Your task to perform on an android device: Go to battery settings Image 0: 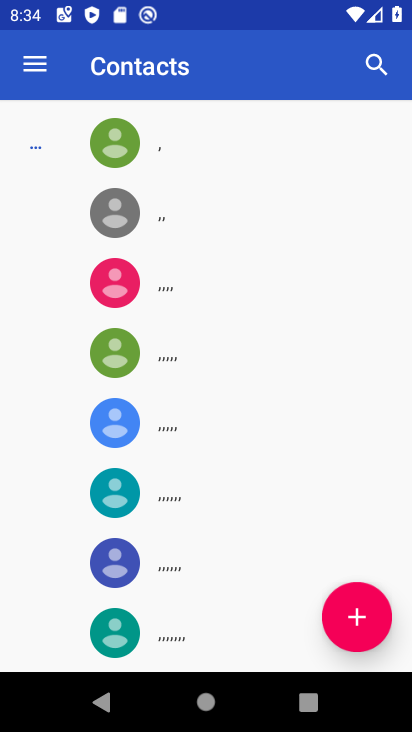
Step 0: press home button
Your task to perform on an android device: Go to battery settings Image 1: 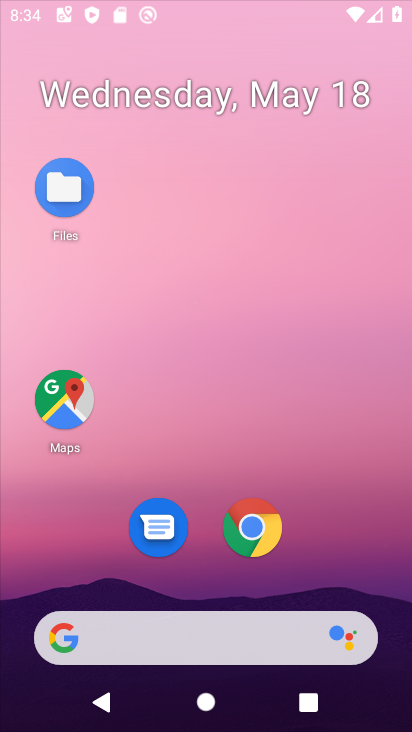
Step 1: press back button
Your task to perform on an android device: Go to battery settings Image 2: 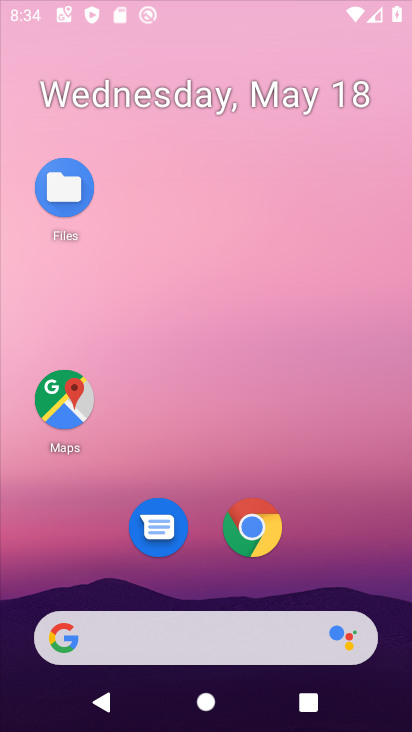
Step 2: drag from (357, 687) to (266, 117)
Your task to perform on an android device: Go to battery settings Image 3: 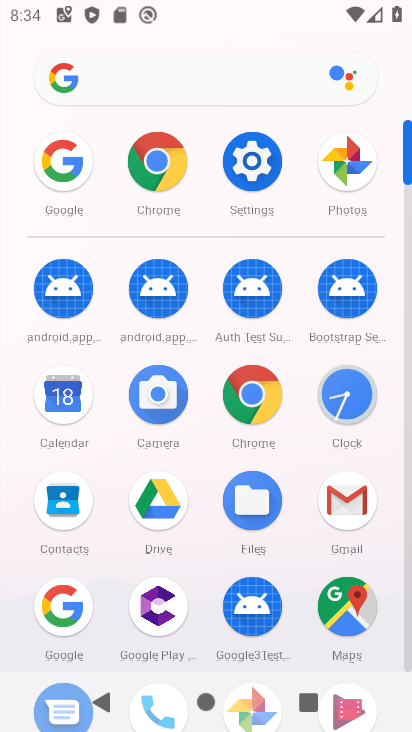
Step 3: drag from (271, 608) to (209, 76)
Your task to perform on an android device: Go to battery settings Image 4: 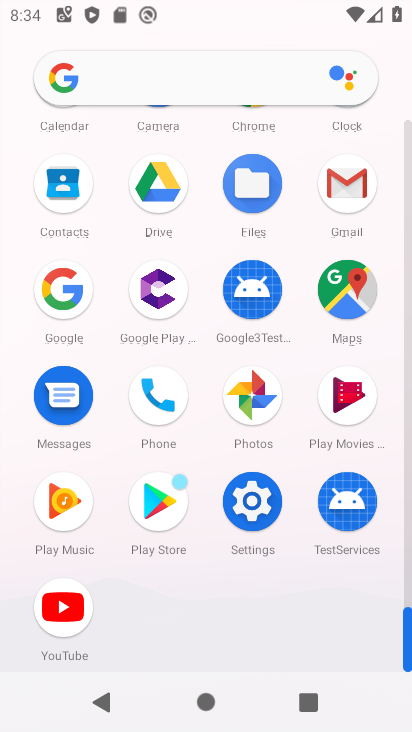
Step 4: click (254, 520)
Your task to perform on an android device: Go to battery settings Image 5: 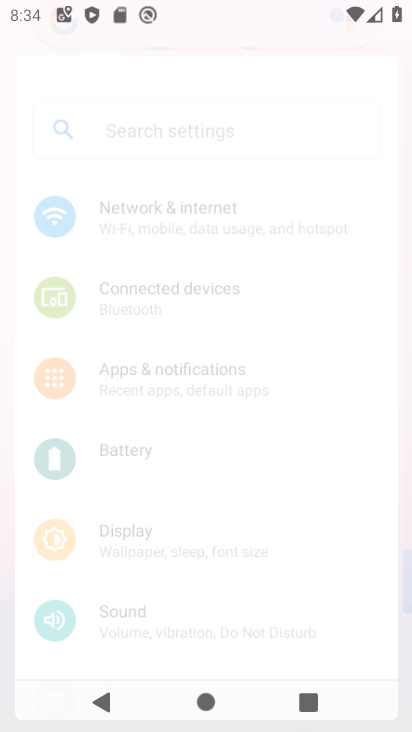
Step 5: click (255, 509)
Your task to perform on an android device: Go to battery settings Image 6: 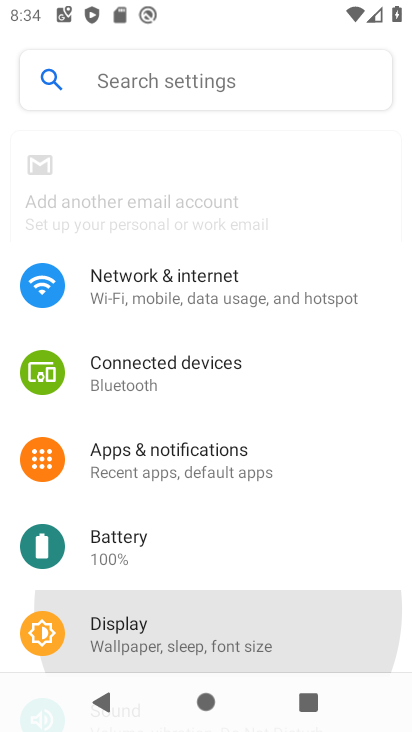
Step 6: click (258, 502)
Your task to perform on an android device: Go to battery settings Image 7: 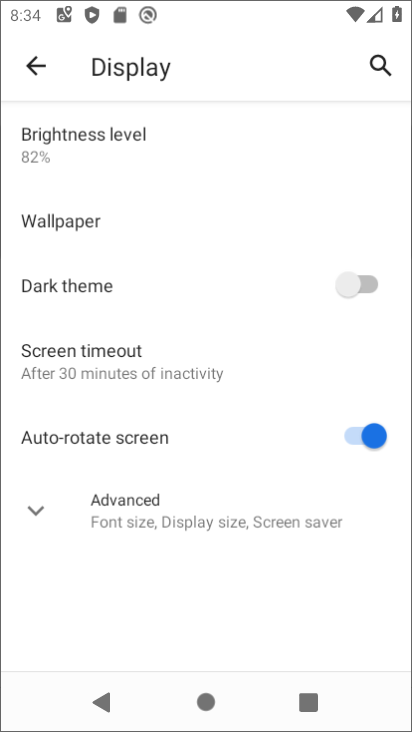
Step 7: click (253, 495)
Your task to perform on an android device: Go to battery settings Image 8: 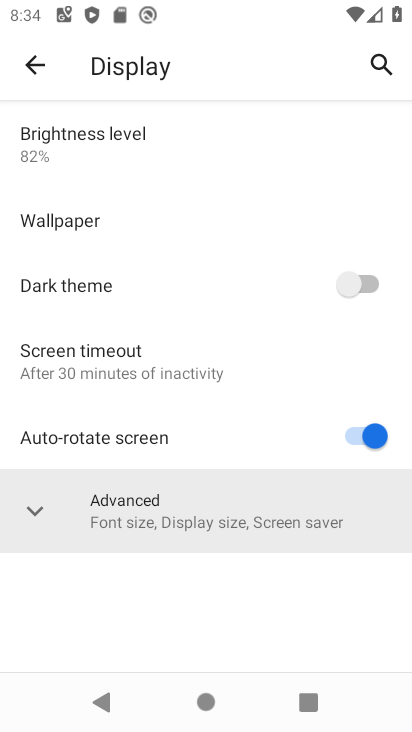
Step 8: click (253, 499)
Your task to perform on an android device: Go to battery settings Image 9: 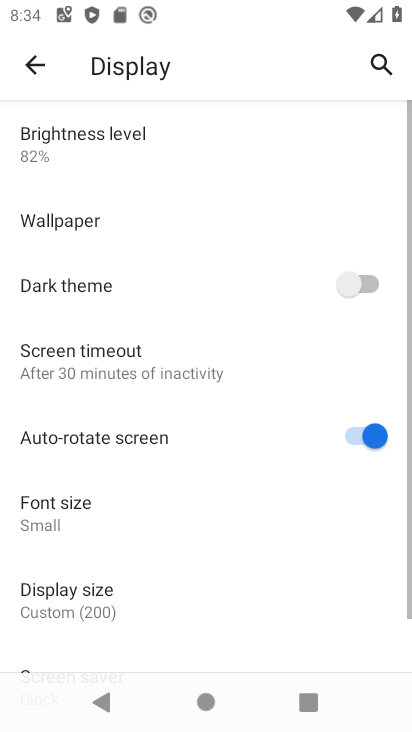
Step 9: click (31, 74)
Your task to perform on an android device: Go to battery settings Image 10: 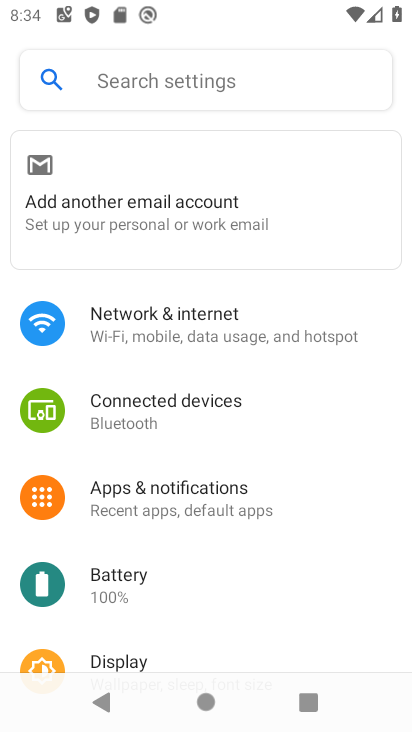
Step 10: click (121, 587)
Your task to perform on an android device: Go to battery settings Image 11: 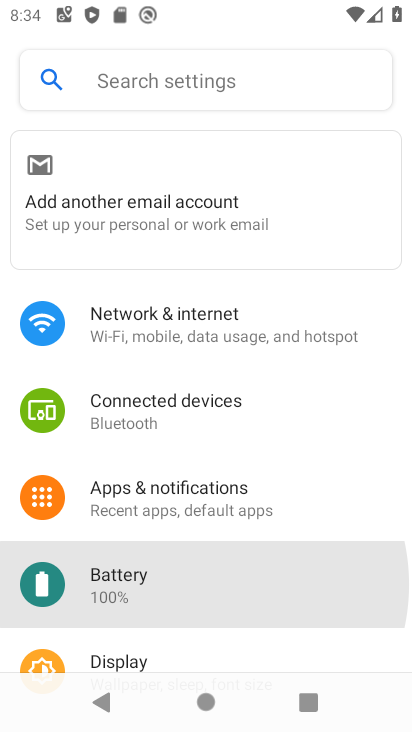
Step 11: click (119, 586)
Your task to perform on an android device: Go to battery settings Image 12: 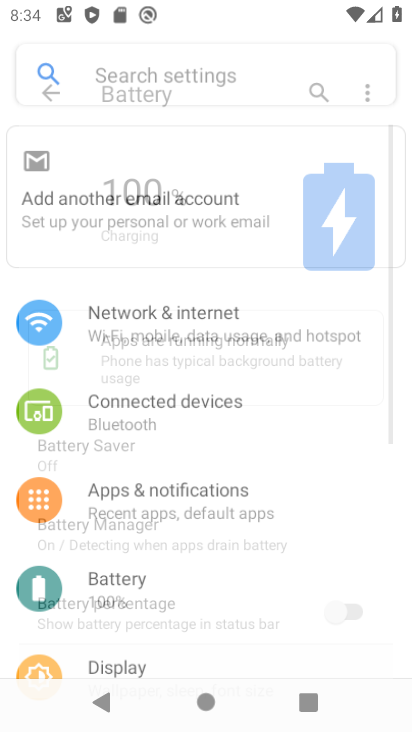
Step 12: click (118, 586)
Your task to perform on an android device: Go to battery settings Image 13: 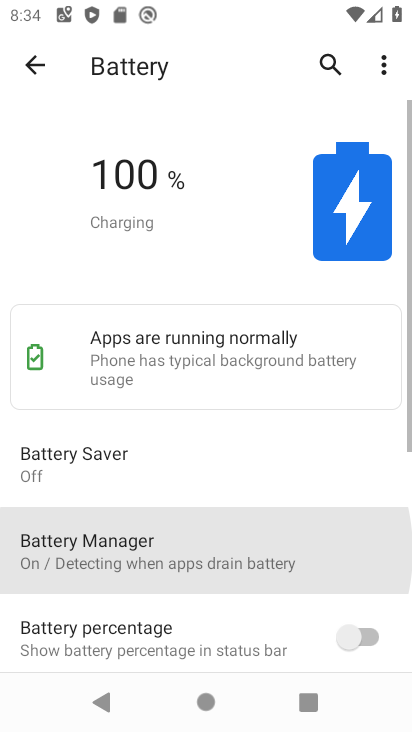
Step 13: click (114, 586)
Your task to perform on an android device: Go to battery settings Image 14: 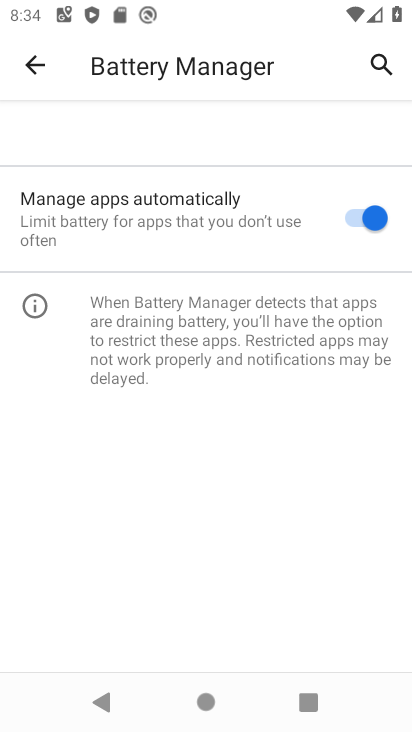
Step 14: task complete